Your task to perform on an android device: move an email to a new category in the gmail app Image 0: 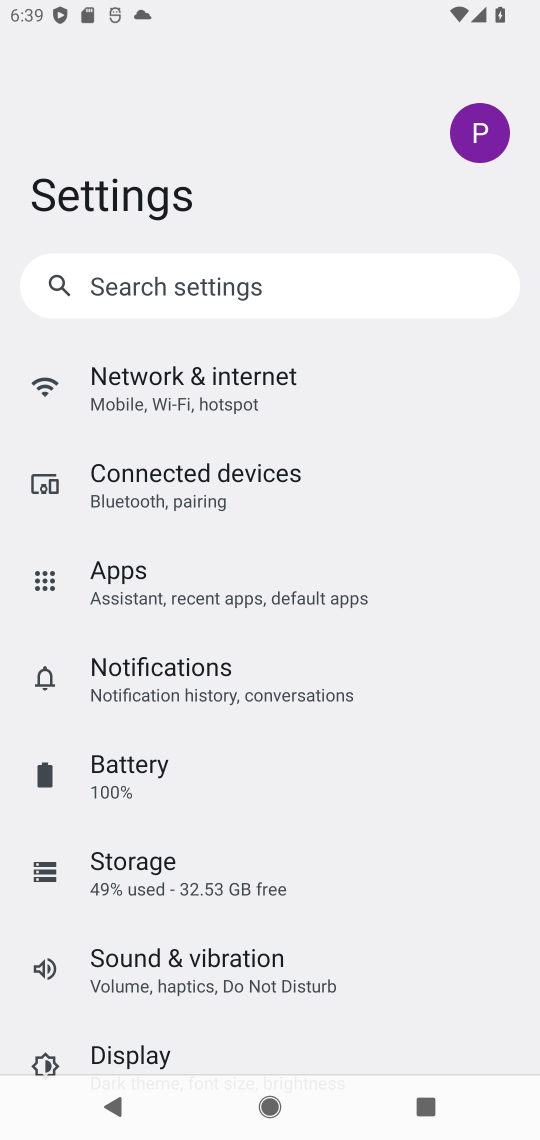
Step 0: press home button
Your task to perform on an android device: move an email to a new category in the gmail app Image 1: 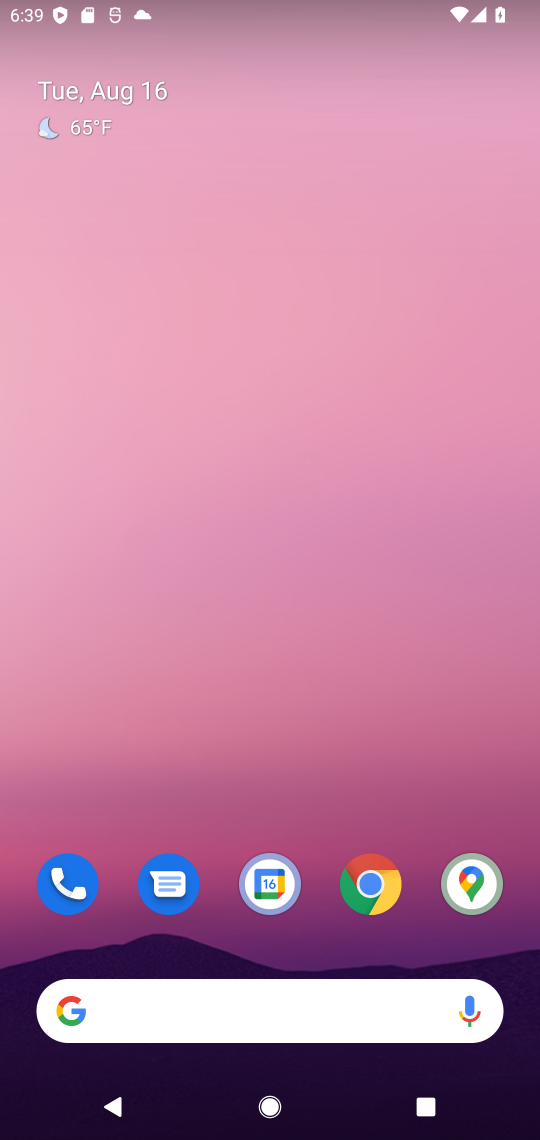
Step 1: drag from (435, 857) to (416, 117)
Your task to perform on an android device: move an email to a new category in the gmail app Image 2: 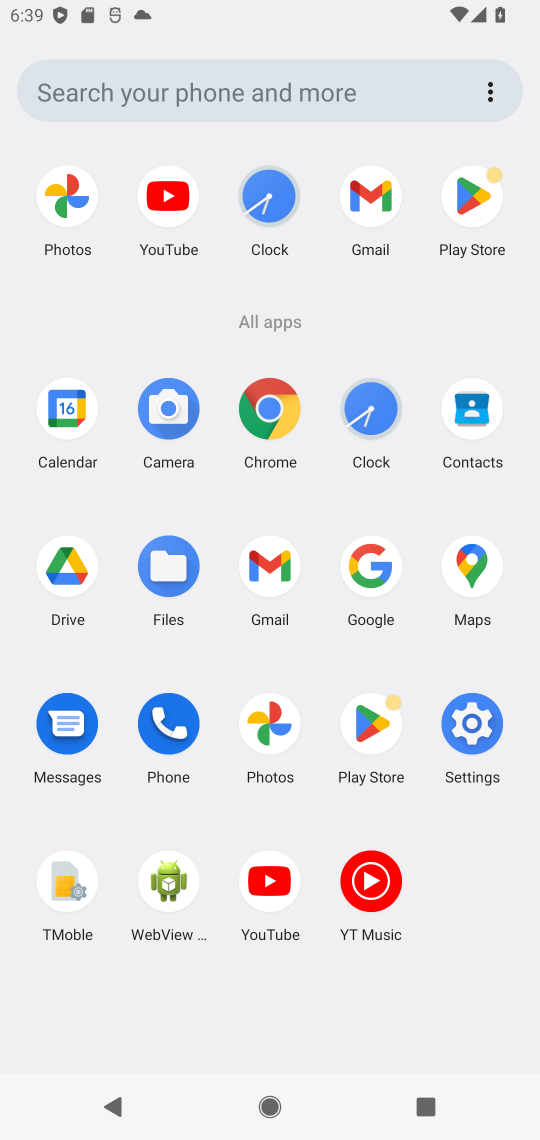
Step 2: click (365, 198)
Your task to perform on an android device: move an email to a new category in the gmail app Image 3: 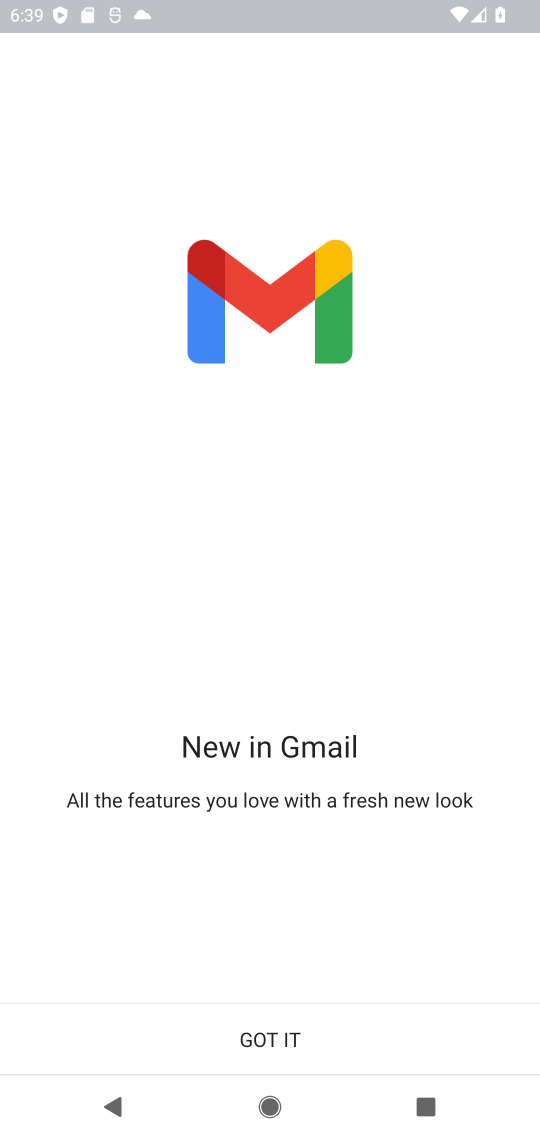
Step 3: click (266, 1033)
Your task to perform on an android device: move an email to a new category in the gmail app Image 4: 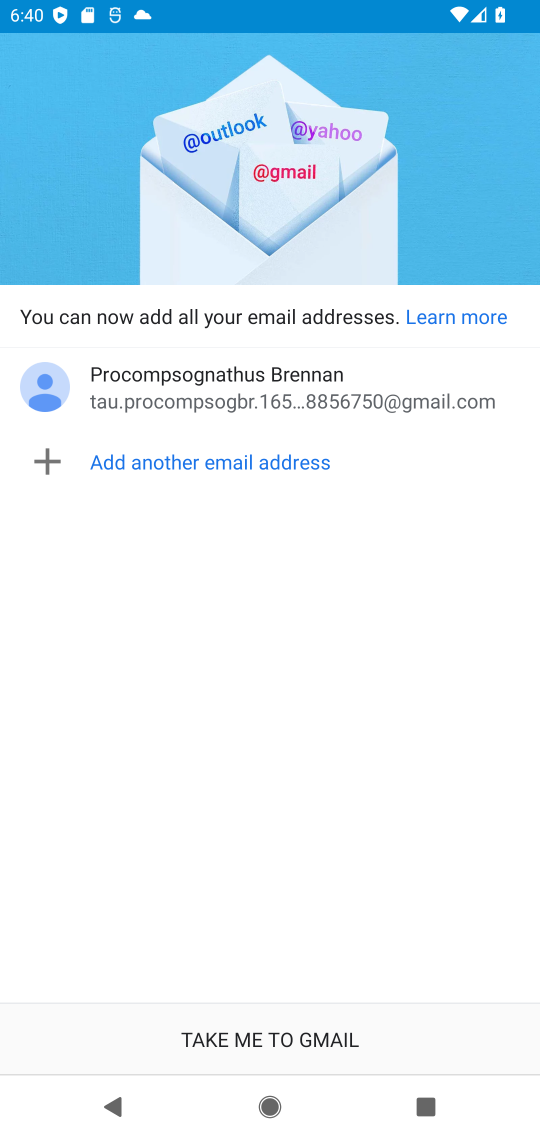
Step 4: drag from (314, 1037) to (6, 194)
Your task to perform on an android device: move an email to a new category in the gmail app Image 5: 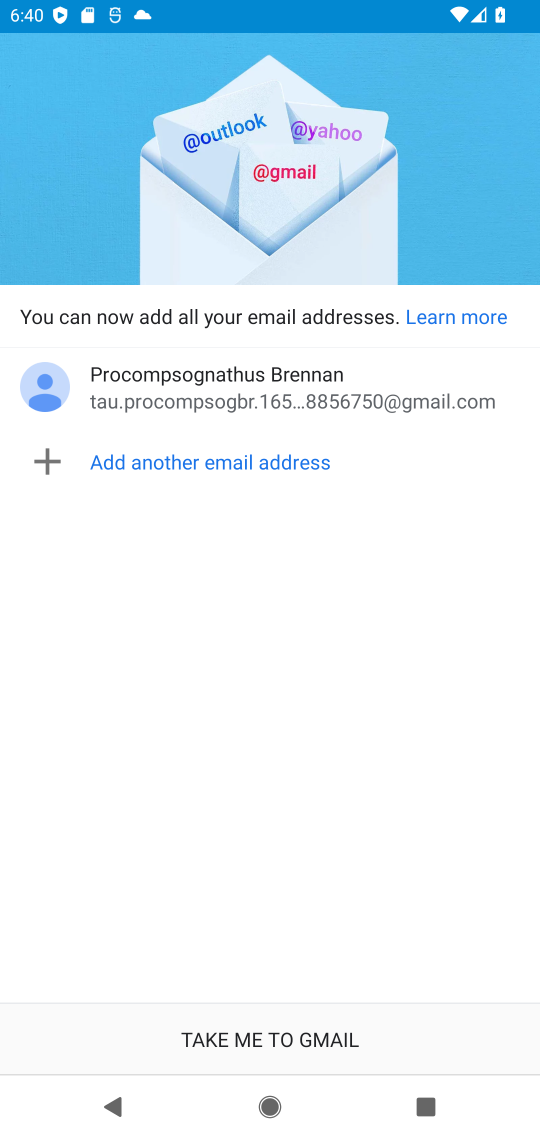
Step 5: drag from (177, 950) to (327, 983)
Your task to perform on an android device: move an email to a new category in the gmail app Image 6: 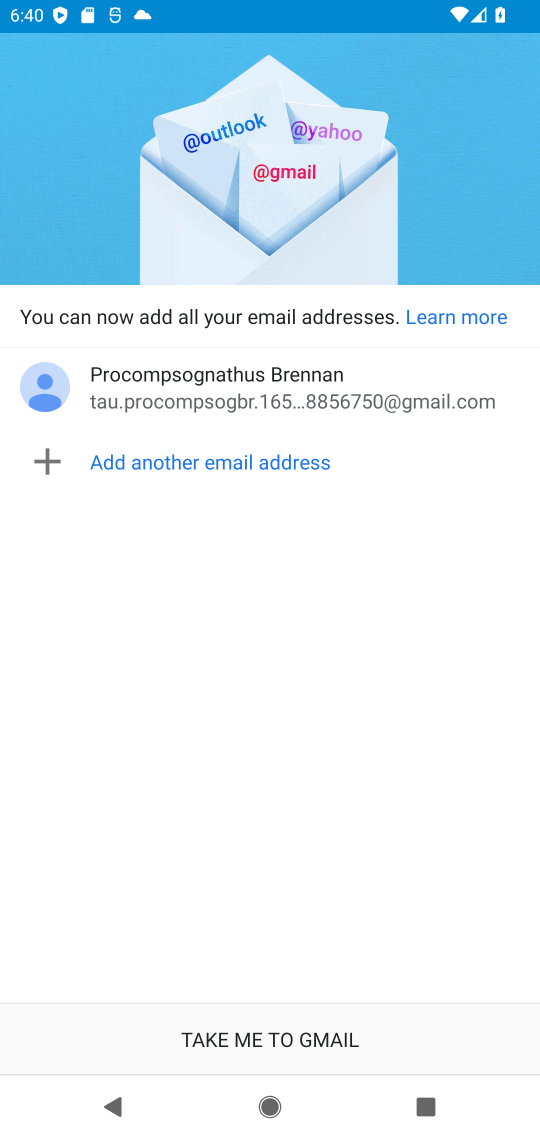
Step 6: click (230, 1023)
Your task to perform on an android device: move an email to a new category in the gmail app Image 7: 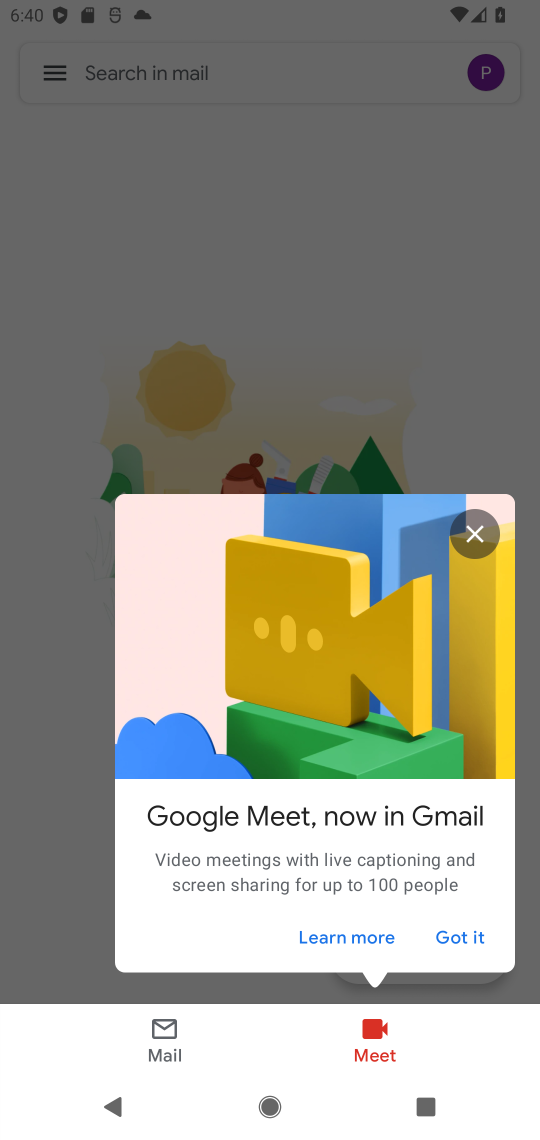
Step 7: click (488, 545)
Your task to perform on an android device: move an email to a new category in the gmail app Image 8: 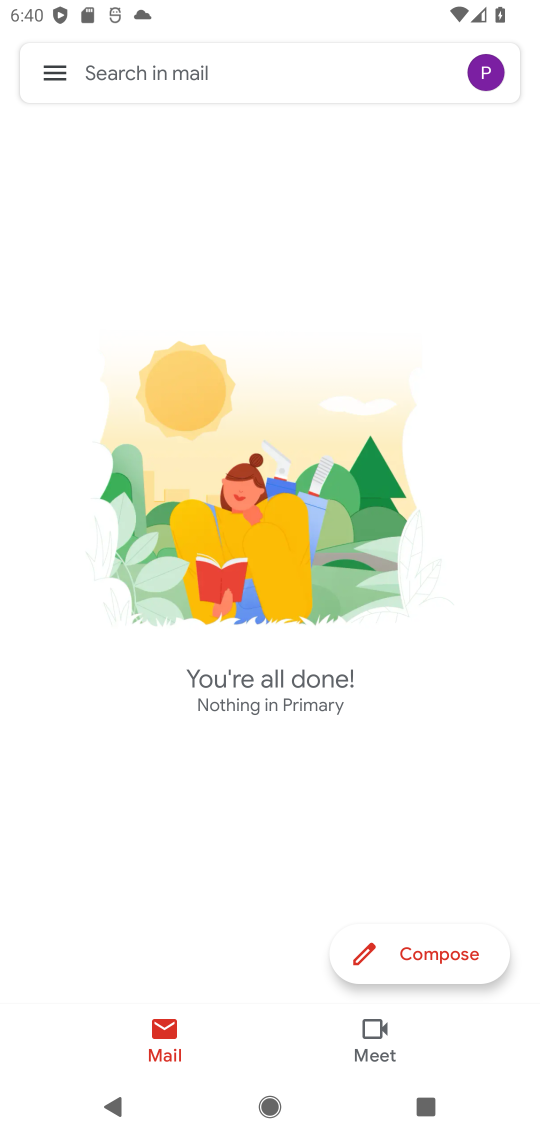
Step 8: click (43, 75)
Your task to perform on an android device: move an email to a new category in the gmail app Image 9: 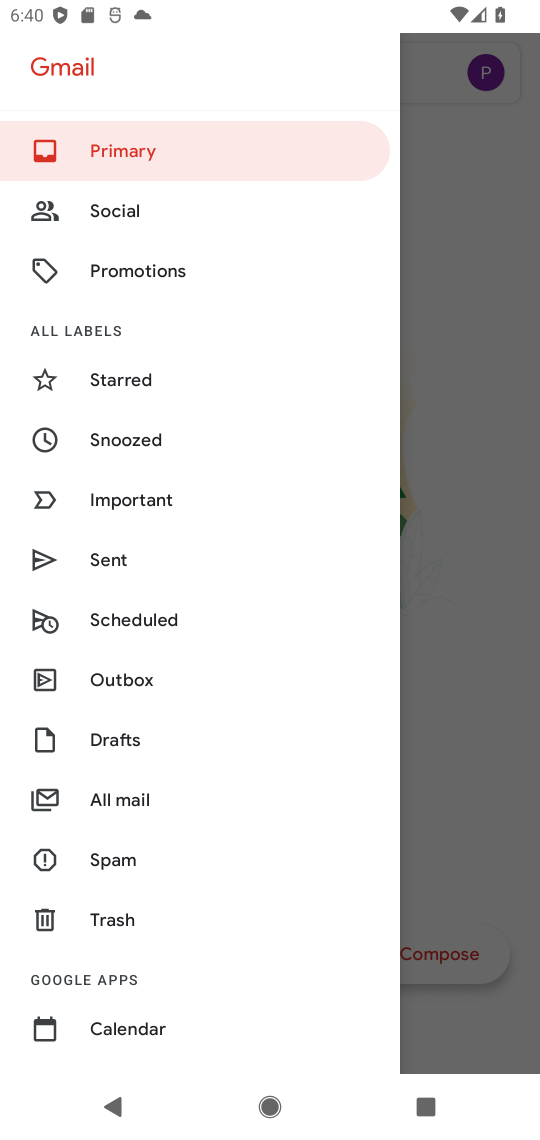
Step 9: click (141, 808)
Your task to perform on an android device: move an email to a new category in the gmail app Image 10: 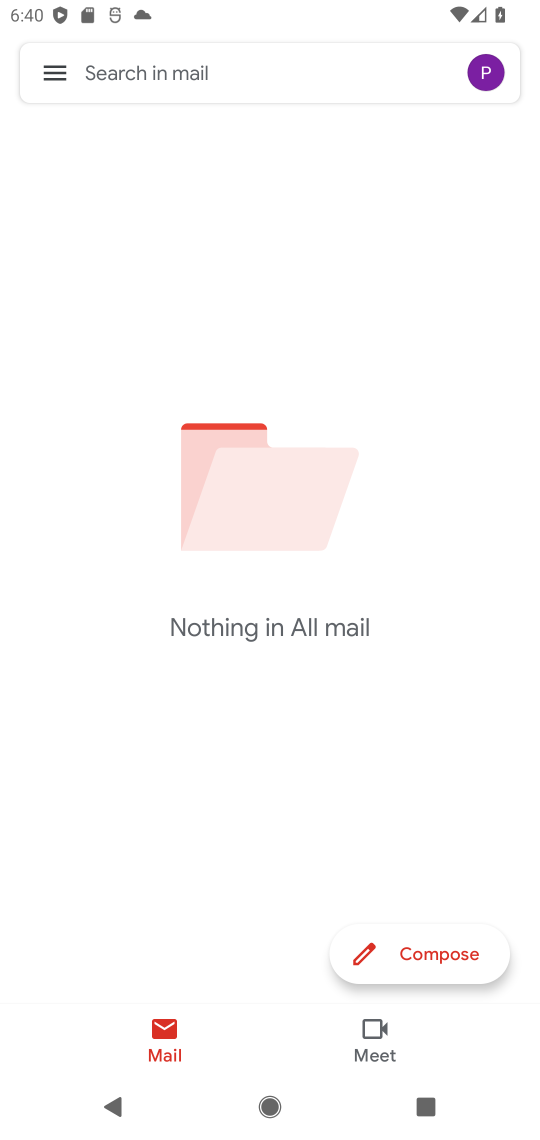
Step 10: task complete